Your task to perform on an android device: Search for pizza restaurants on Maps Image 0: 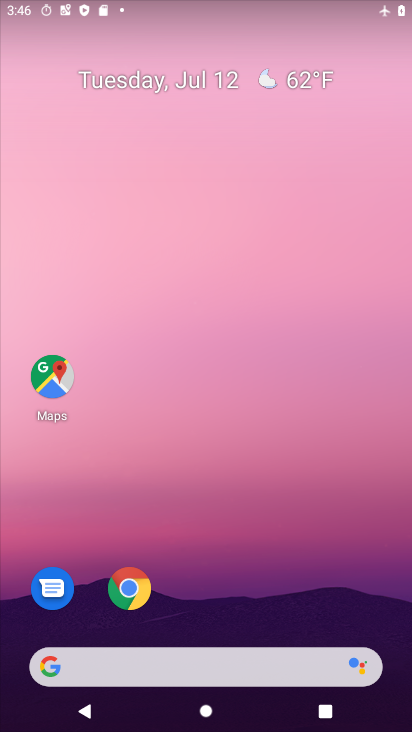
Step 0: drag from (229, 620) to (165, 2)
Your task to perform on an android device: Search for pizza restaurants on Maps Image 1: 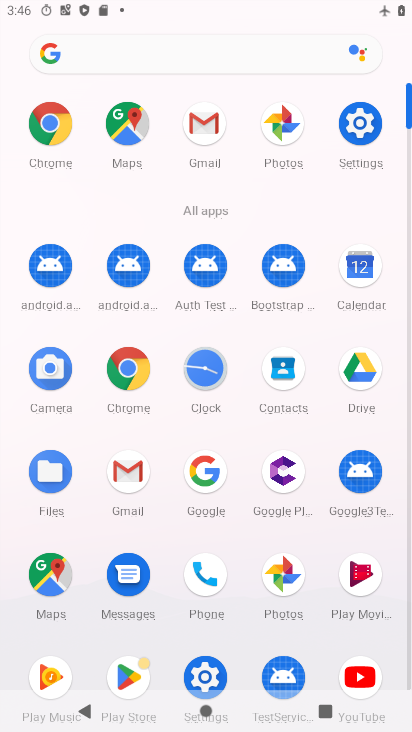
Step 1: click (279, 590)
Your task to perform on an android device: Search for pizza restaurants on Maps Image 2: 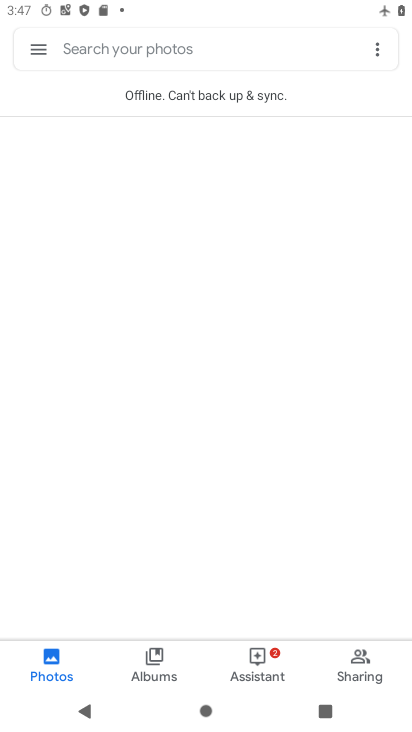
Step 2: press home button
Your task to perform on an android device: Search for pizza restaurants on Maps Image 3: 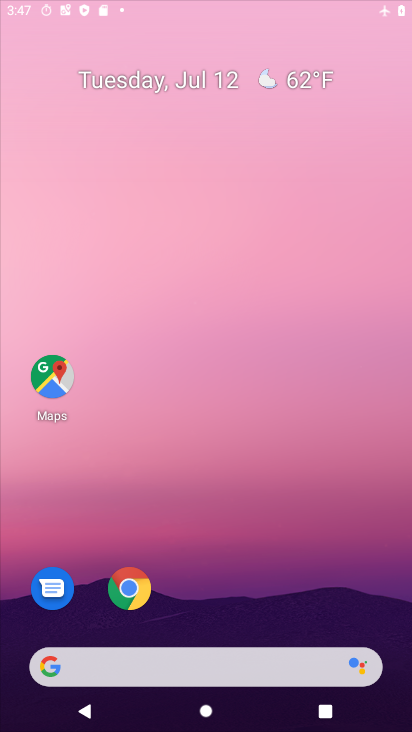
Step 3: drag from (233, 618) to (180, 9)
Your task to perform on an android device: Search for pizza restaurants on Maps Image 4: 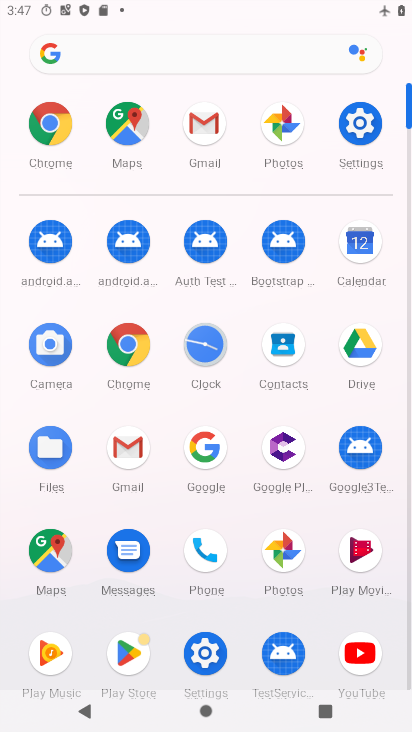
Step 4: click (52, 584)
Your task to perform on an android device: Search for pizza restaurants on Maps Image 5: 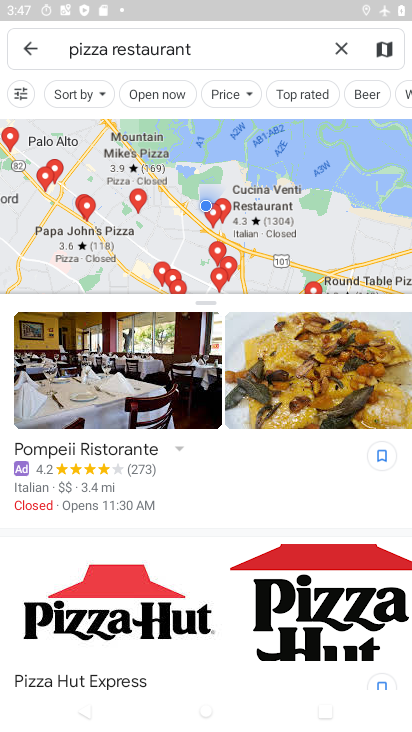
Step 5: task complete